Your task to perform on an android device: Add usb-a to the cart on bestbuy.com, then select checkout. Image 0: 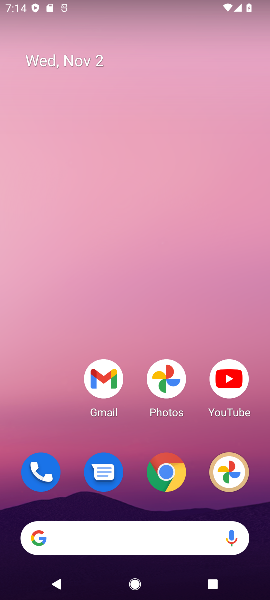
Step 0: click (160, 475)
Your task to perform on an android device: Add usb-a to the cart on bestbuy.com, then select checkout. Image 1: 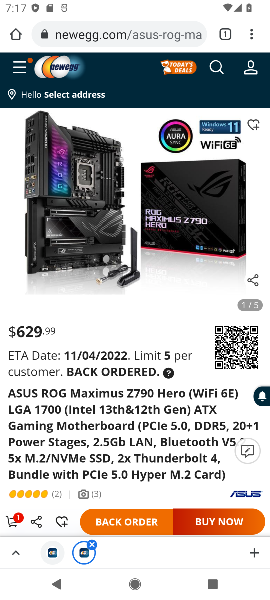
Step 1: click (160, 39)
Your task to perform on an android device: Add usb-a to the cart on bestbuy.com, then select checkout. Image 2: 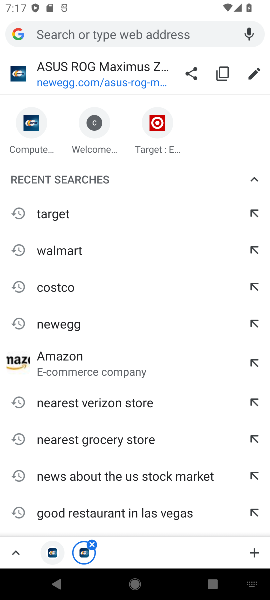
Step 2: type "bestbuy.com"
Your task to perform on an android device: Add usb-a to the cart on bestbuy.com, then select checkout. Image 3: 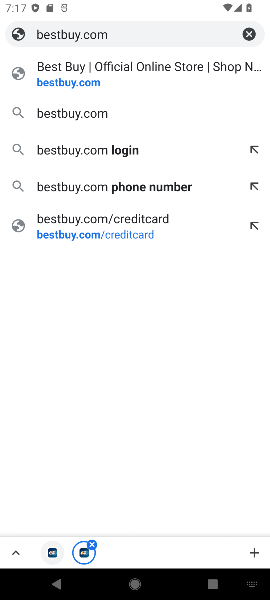
Step 3: click (124, 77)
Your task to perform on an android device: Add usb-a to the cart on bestbuy.com, then select checkout. Image 4: 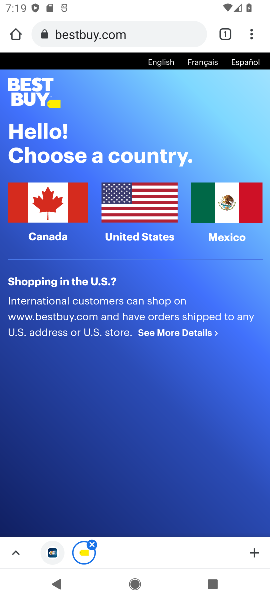
Step 4: click (133, 212)
Your task to perform on an android device: Add usb-a to the cart on bestbuy.com, then select checkout. Image 5: 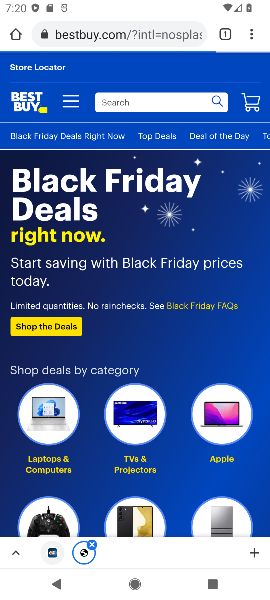
Step 5: click (163, 102)
Your task to perform on an android device: Add usb-a to the cart on bestbuy.com, then select checkout. Image 6: 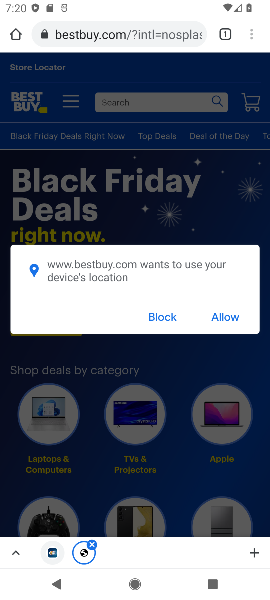
Step 6: type "usb-a"
Your task to perform on an android device: Add usb-a to the cart on bestbuy.com, then select checkout. Image 7: 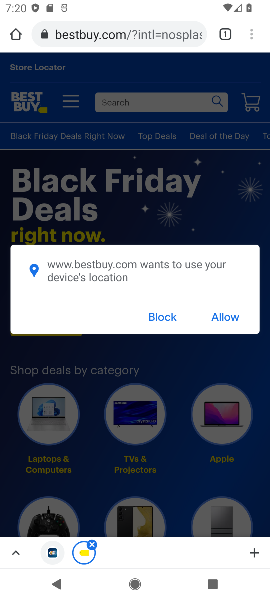
Step 7: click (218, 317)
Your task to perform on an android device: Add usb-a to the cart on bestbuy.com, then select checkout. Image 8: 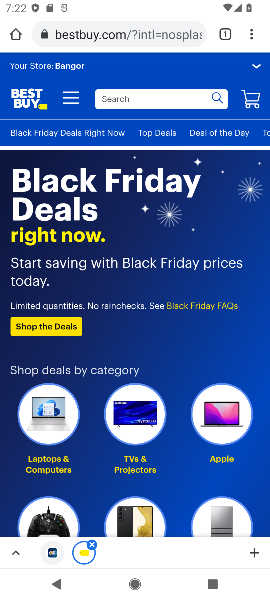
Step 8: task complete